Your task to perform on an android device: Open accessibility settings Image 0: 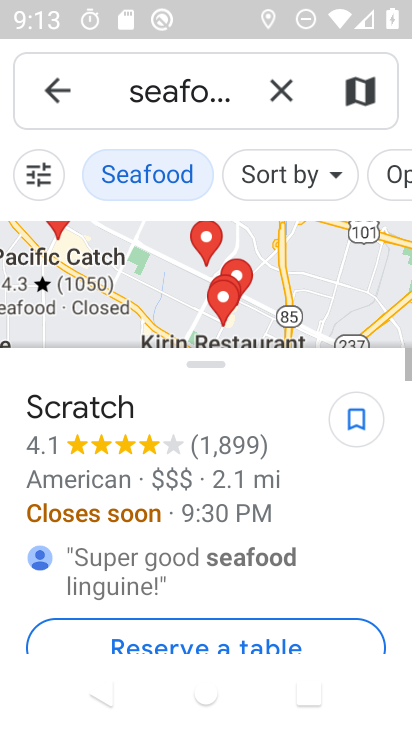
Step 0: press home button
Your task to perform on an android device: Open accessibility settings Image 1: 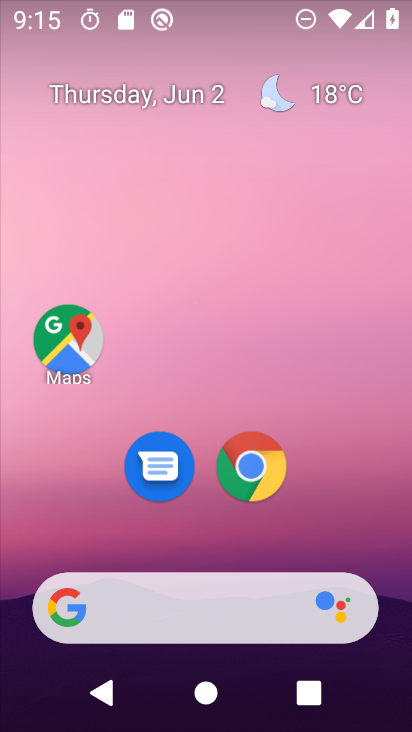
Step 1: drag from (315, 537) to (281, 150)
Your task to perform on an android device: Open accessibility settings Image 2: 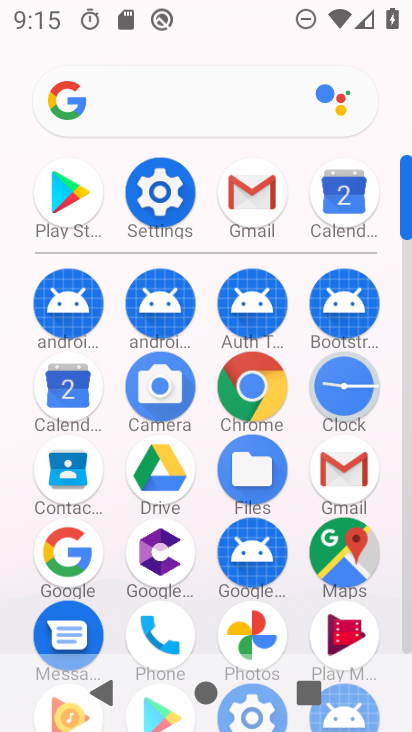
Step 2: click (161, 188)
Your task to perform on an android device: Open accessibility settings Image 3: 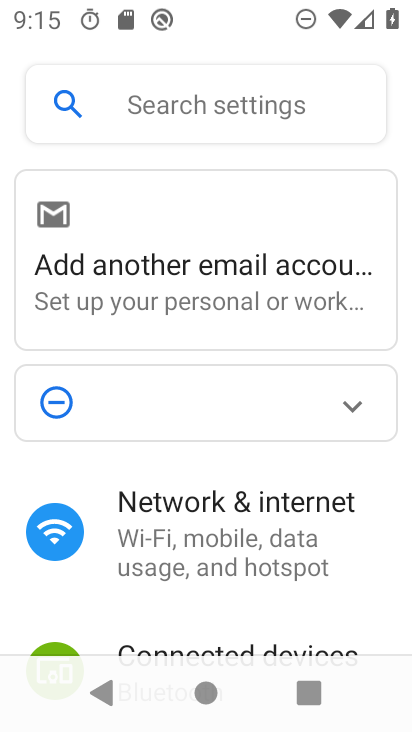
Step 3: drag from (220, 610) to (230, 306)
Your task to perform on an android device: Open accessibility settings Image 4: 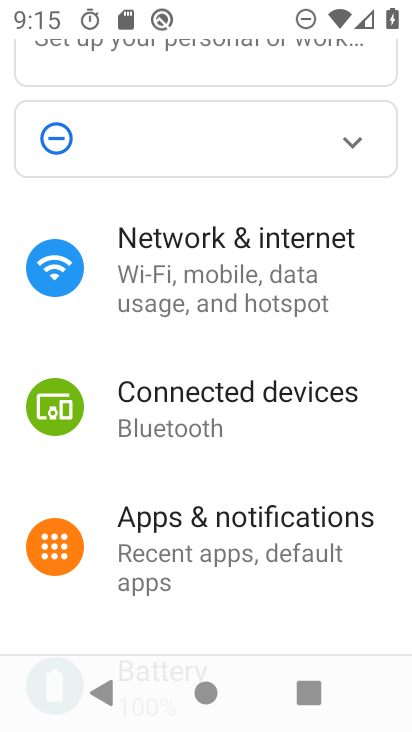
Step 4: drag from (223, 627) to (234, 156)
Your task to perform on an android device: Open accessibility settings Image 5: 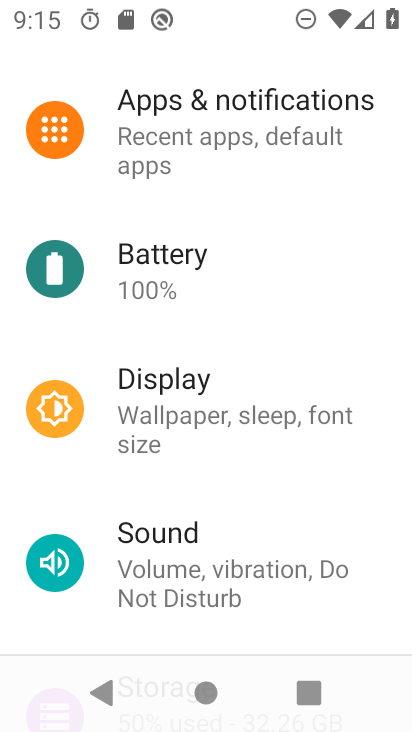
Step 5: drag from (220, 632) to (247, 238)
Your task to perform on an android device: Open accessibility settings Image 6: 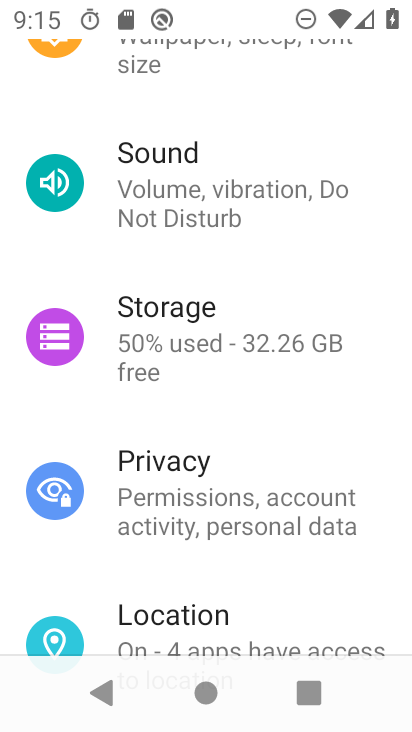
Step 6: drag from (227, 575) to (227, 125)
Your task to perform on an android device: Open accessibility settings Image 7: 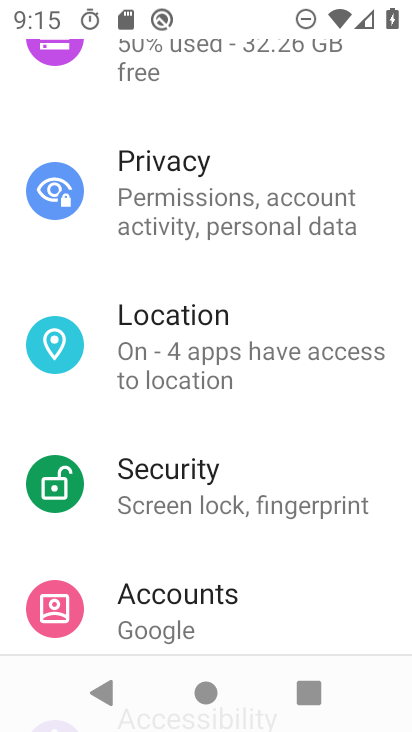
Step 7: drag from (224, 549) to (234, 169)
Your task to perform on an android device: Open accessibility settings Image 8: 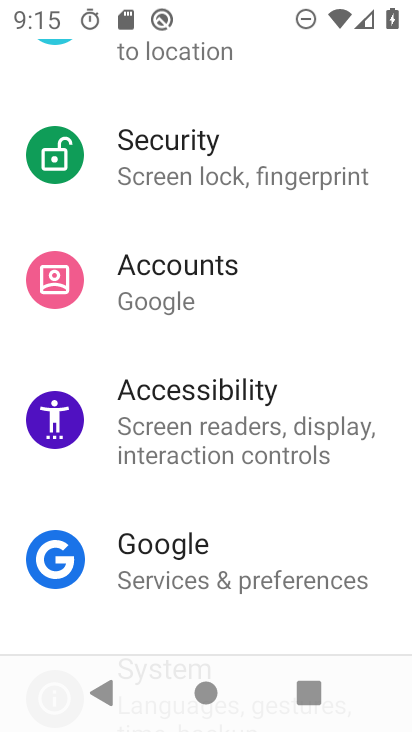
Step 8: click (202, 399)
Your task to perform on an android device: Open accessibility settings Image 9: 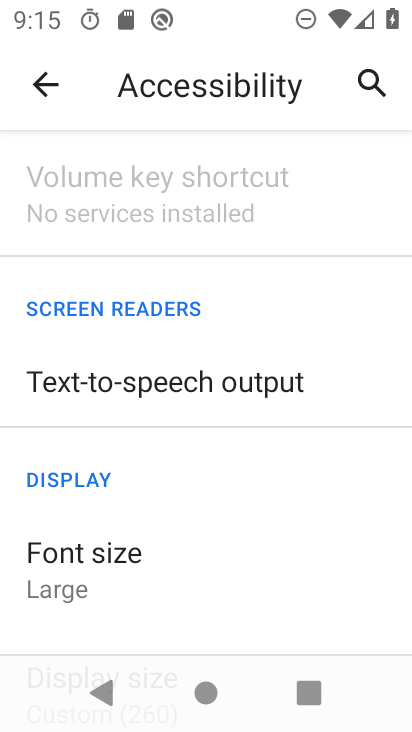
Step 9: task complete